Your task to perform on an android device: toggle translation in the chrome app Image 0: 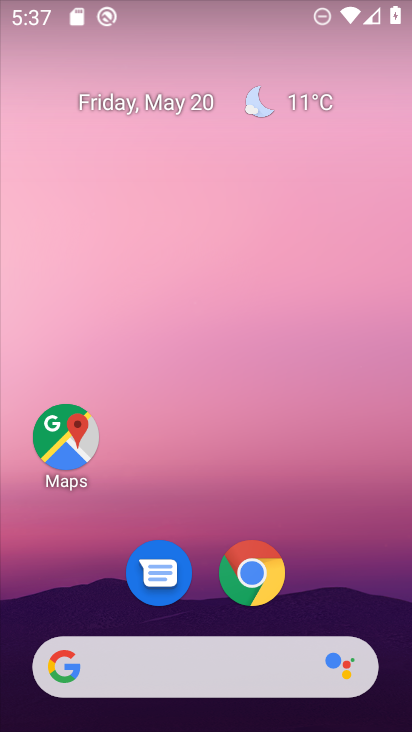
Step 0: click (261, 574)
Your task to perform on an android device: toggle translation in the chrome app Image 1: 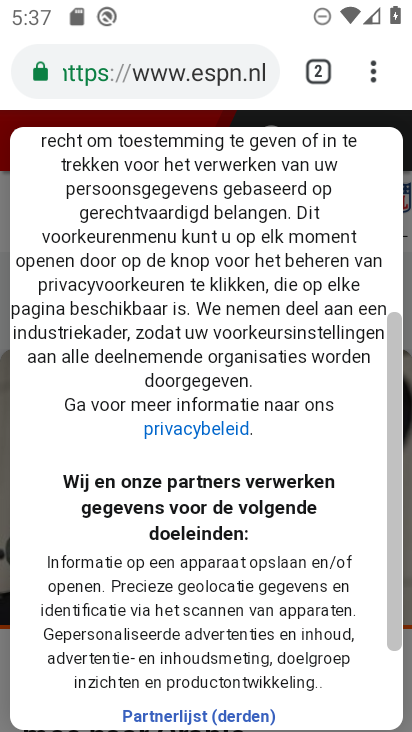
Step 1: click (369, 64)
Your task to perform on an android device: toggle translation in the chrome app Image 2: 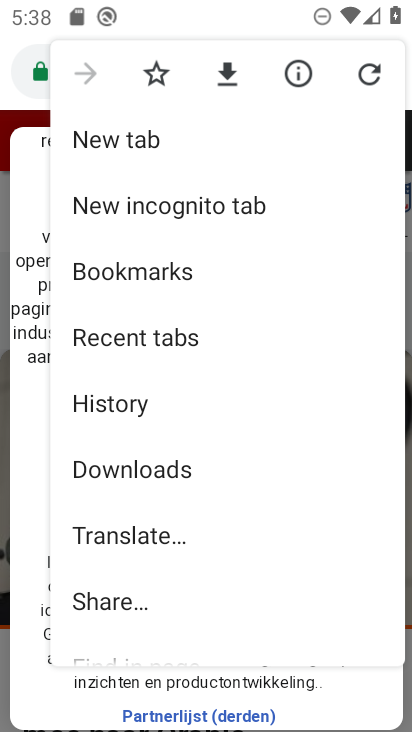
Step 2: drag from (231, 473) to (182, 175)
Your task to perform on an android device: toggle translation in the chrome app Image 3: 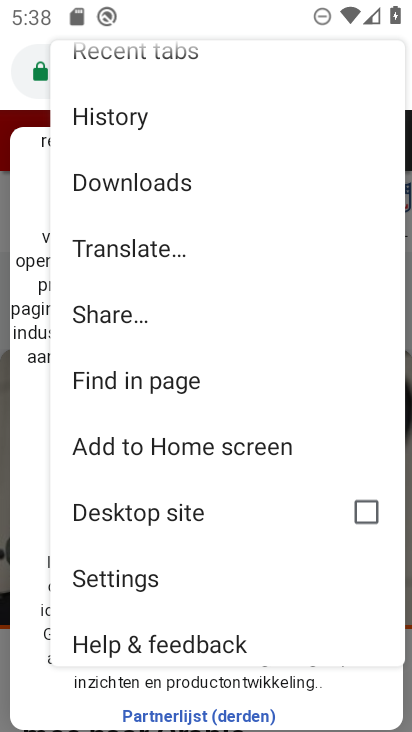
Step 3: click (189, 582)
Your task to perform on an android device: toggle translation in the chrome app Image 4: 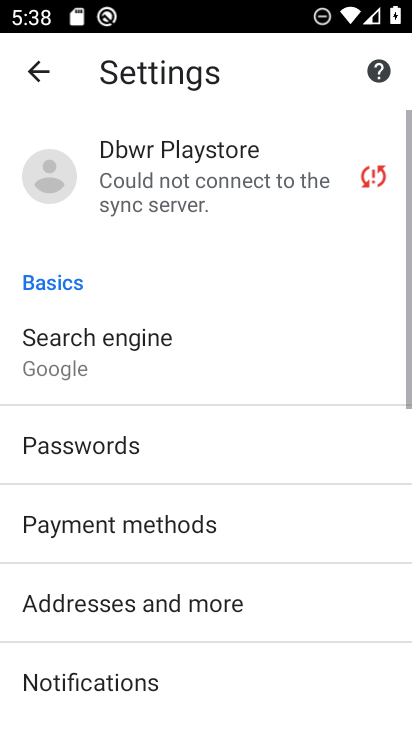
Step 4: drag from (254, 603) to (181, 154)
Your task to perform on an android device: toggle translation in the chrome app Image 5: 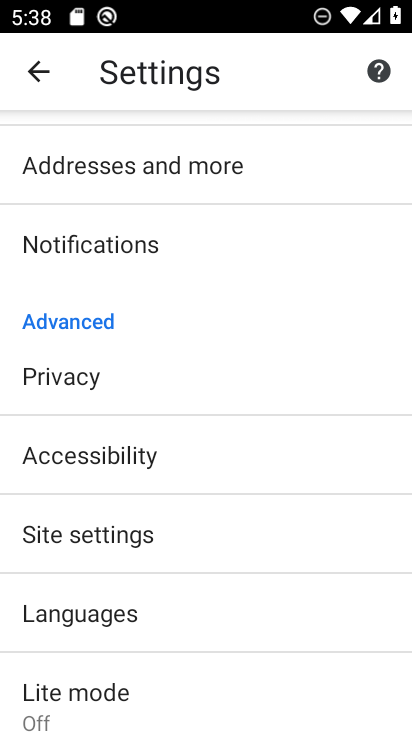
Step 5: click (152, 618)
Your task to perform on an android device: toggle translation in the chrome app Image 6: 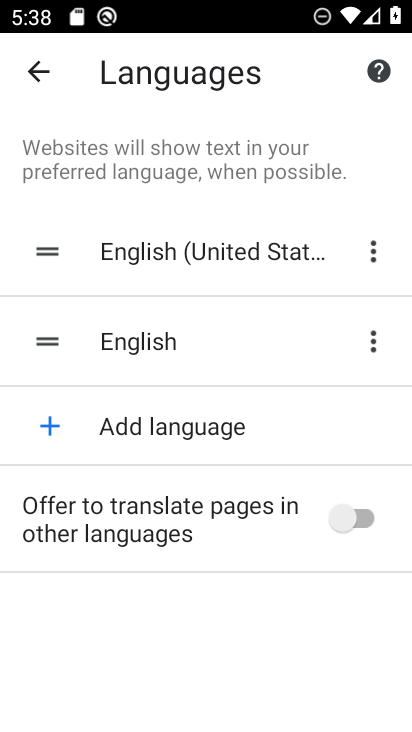
Step 6: click (352, 522)
Your task to perform on an android device: toggle translation in the chrome app Image 7: 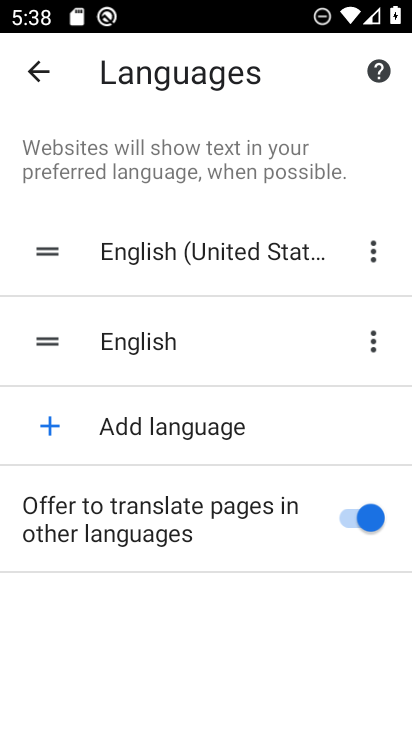
Step 7: task complete